Your task to perform on an android device: Search for pizza restaurants on Maps Image 0: 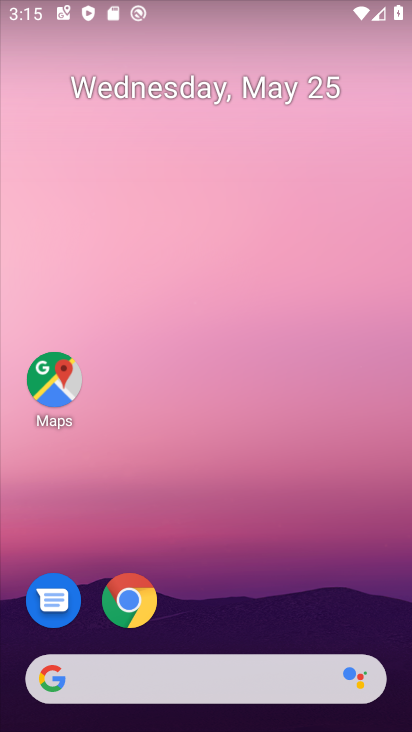
Step 0: press home button
Your task to perform on an android device: Search for pizza restaurants on Maps Image 1: 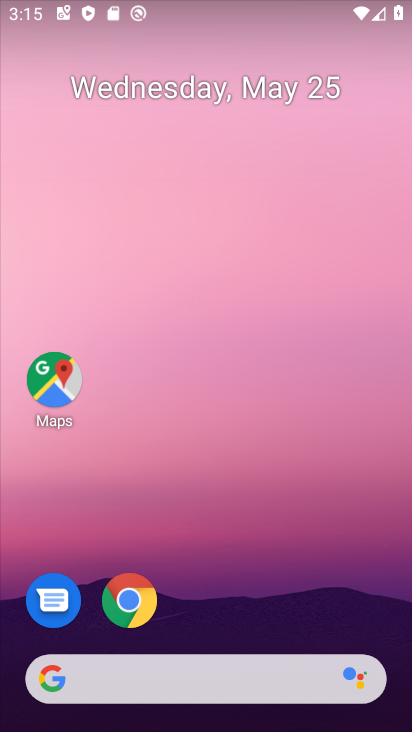
Step 1: drag from (9, 660) to (181, 130)
Your task to perform on an android device: Search for pizza restaurants on Maps Image 2: 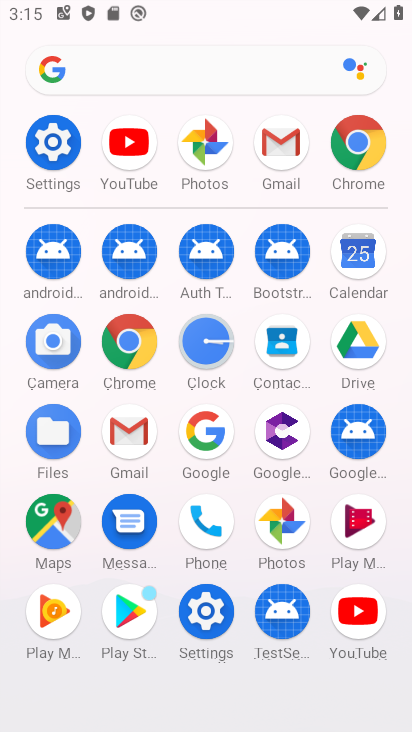
Step 2: click (28, 516)
Your task to perform on an android device: Search for pizza restaurants on Maps Image 3: 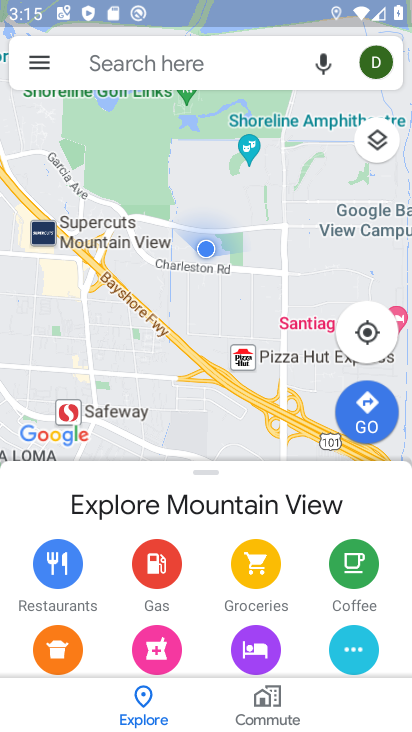
Step 3: click (228, 44)
Your task to perform on an android device: Search for pizza restaurants on Maps Image 4: 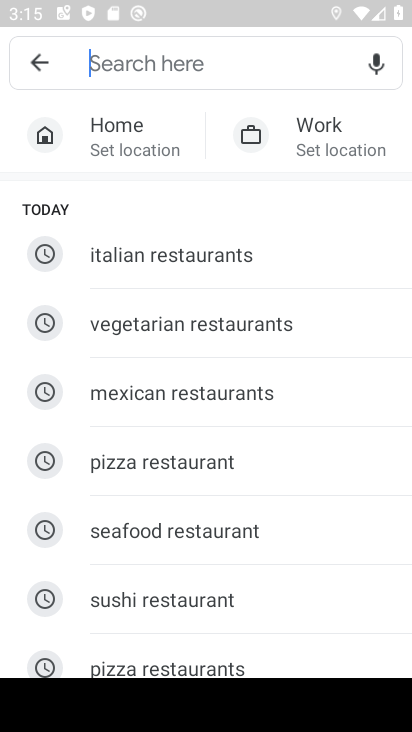
Step 4: click (168, 468)
Your task to perform on an android device: Search for pizza restaurants on Maps Image 5: 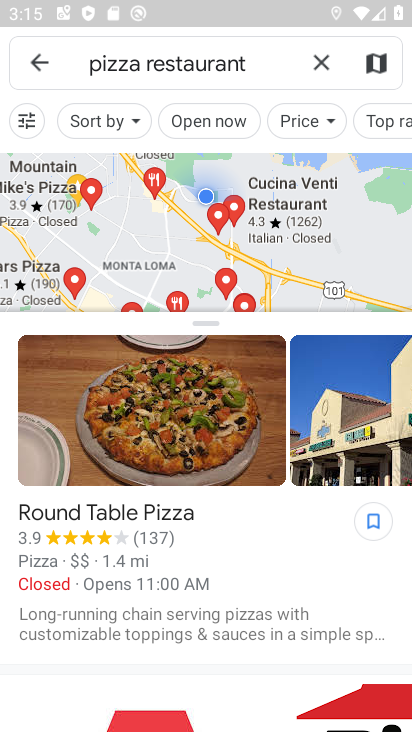
Step 5: task complete